Your task to perform on an android device: What's the weather going to be this weekend? Image 0: 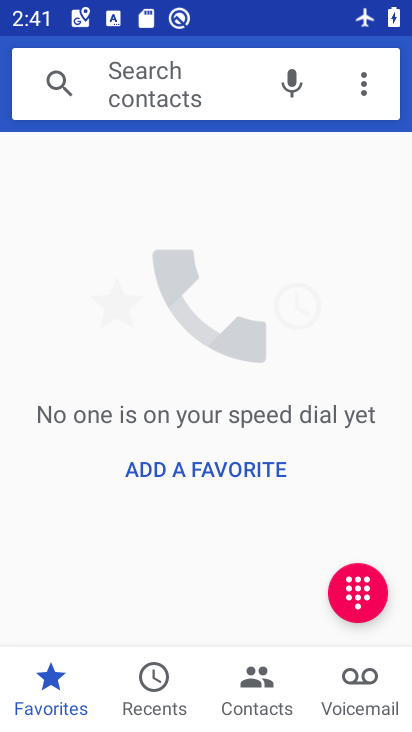
Step 0: press home button
Your task to perform on an android device: What's the weather going to be this weekend? Image 1: 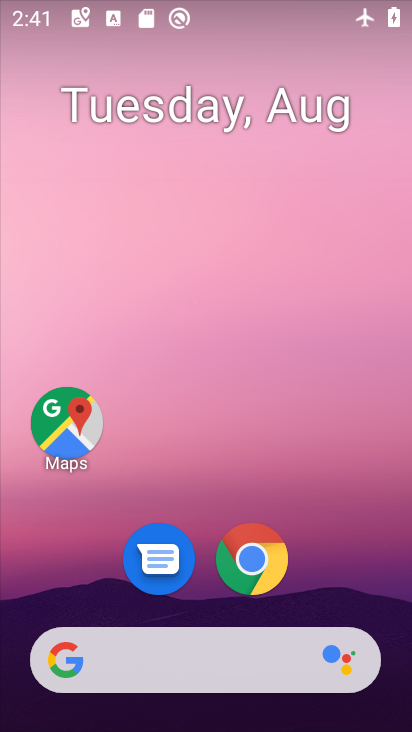
Step 1: drag from (195, 507) to (189, 165)
Your task to perform on an android device: What's the weather going to be this weekend? Image 2: 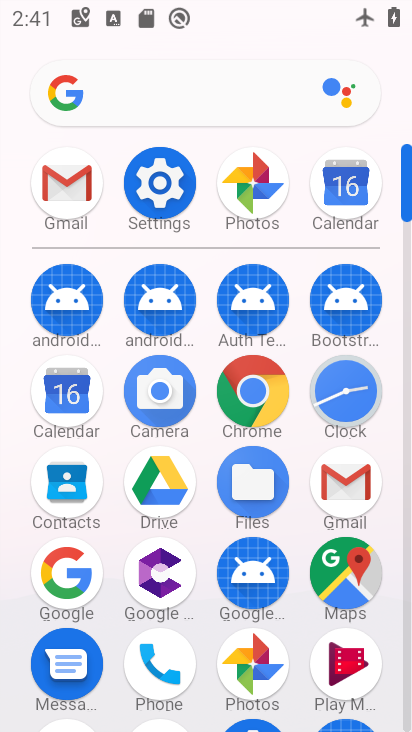
Step 2: click (63, 576)
Your task to perform on an android device: What's the weather going to be this weekend? Image 3: 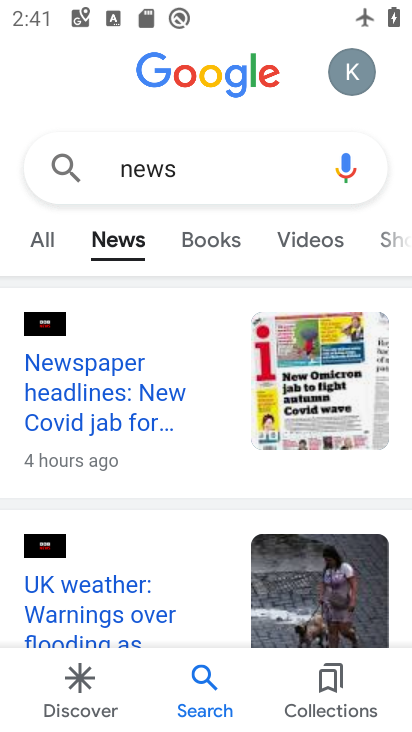
Step 3: click (220, 167)
Your task to perform on an android device: What's the weather going to be this weekend? Image 4: 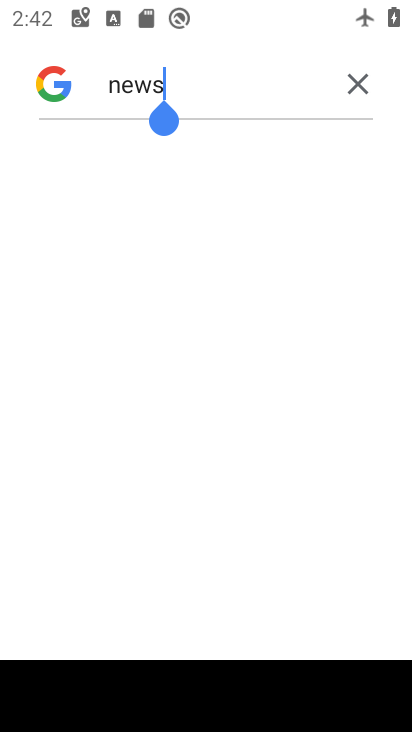
Step 4: click (365, 77)
Your task to perform on an android device: What's the weather going to be this weekend? Image 5: 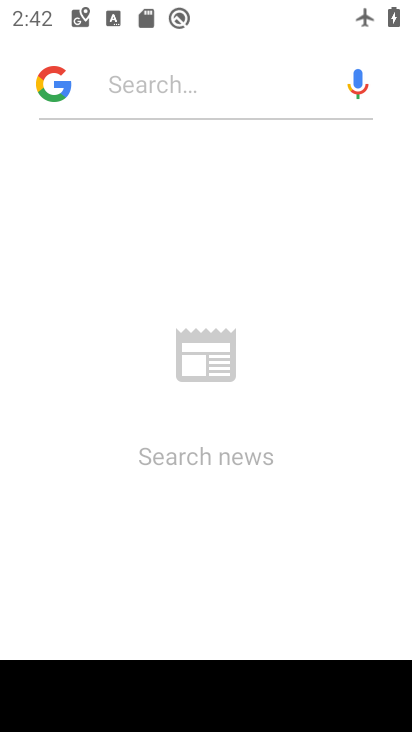
Step 5: type "weather"
Your task to perform on an android device: What's the weather going to be this weekend? Image 6: 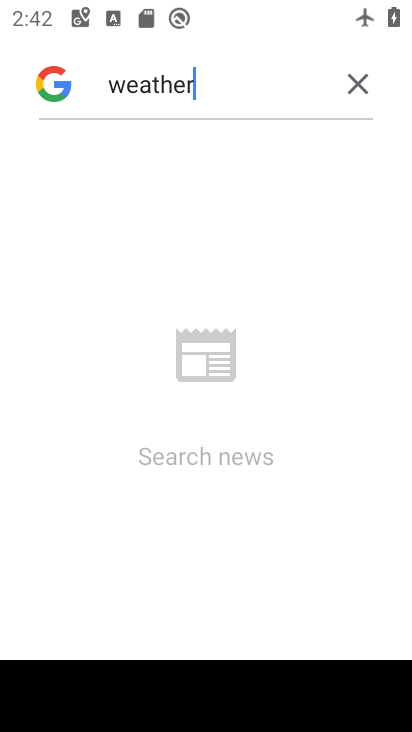
Step 6: type ""
Your task to perform on an android device: What's the weather going to be this weekend? Image 7: 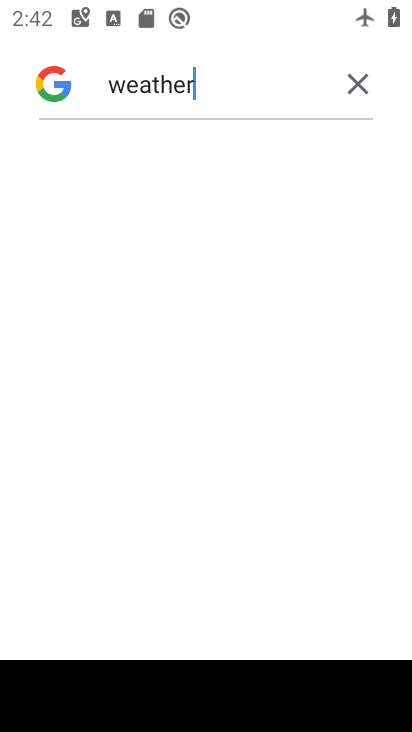
Step 7: task complete